Your task to perform on an android device: Show me productivity apps on the Play Store Image 0: 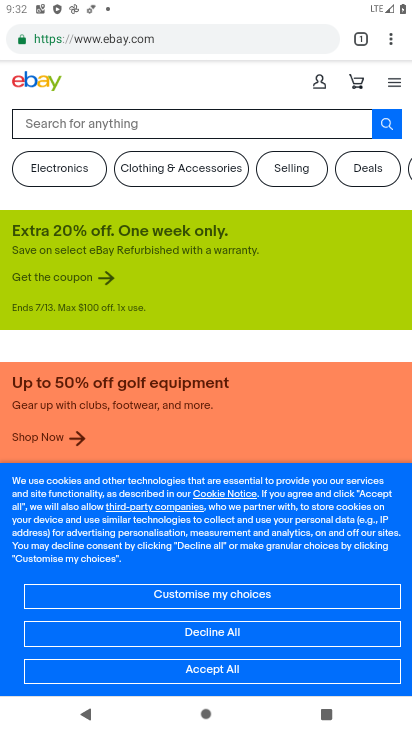
Step 0: press home button
Your task to perform on an android device: Show me productivity apps on the Play Store Image 1: 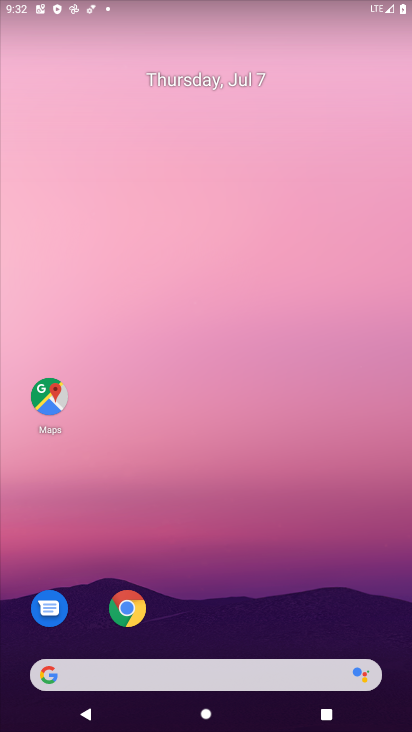
Step 1: drag from (176, 594) to (187, 114)
Your task to perform on an android device: Show me productivity apps on the Play Store Image 2: 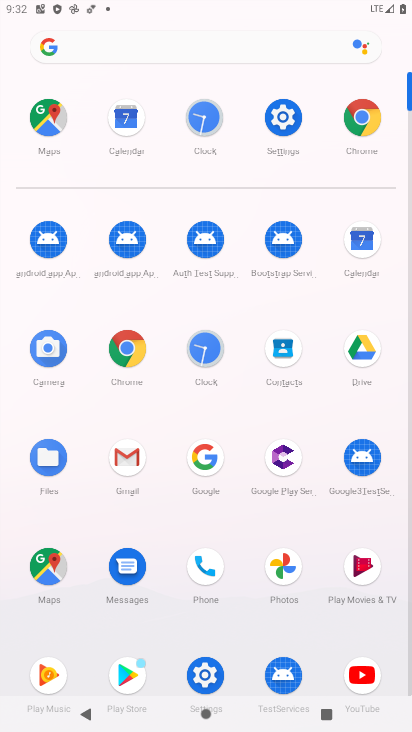
Step 2: click (126, 672)
Your task to perform on an android device: Show me productivity apps on the Play Store Image 3: 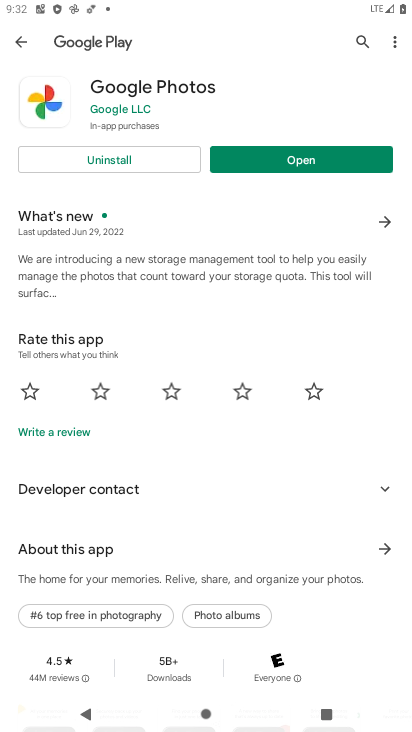
Step 3: press back button
Your task to perform on an android device: Show me productivity apps on the Play Store Image 4: 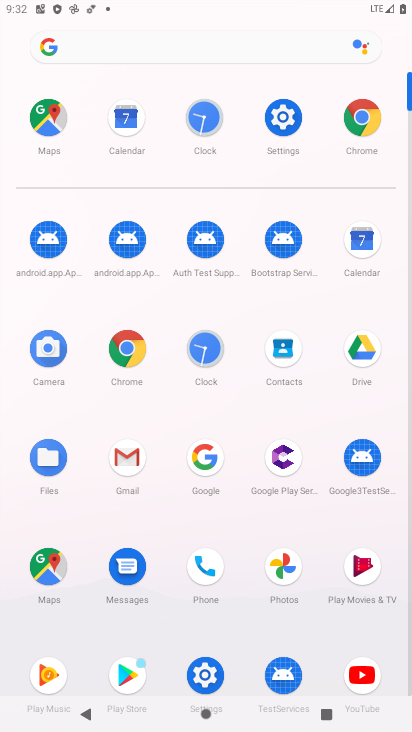
Step 4: click (129, 680)
Your task to perform on an android device: Show me productivity apps on the Play Store Image 5: 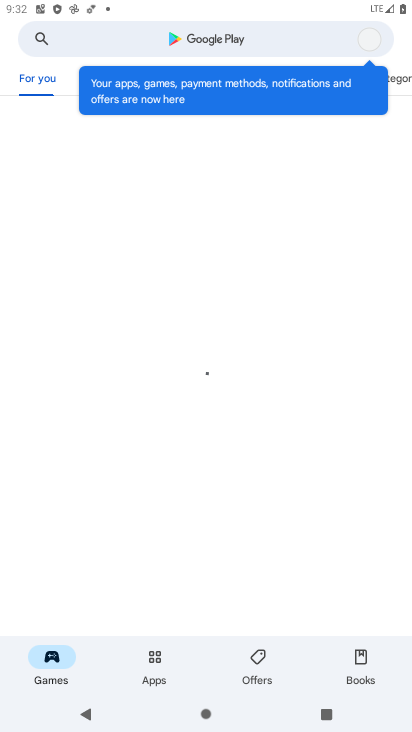
Step 5: click (153, 664)
Your task to perform on an android device: Show me productivity apps on the Play Store Image 6: 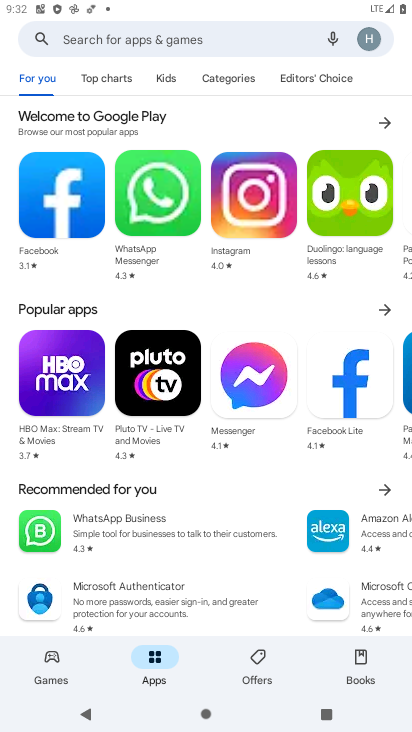
Step 6: click (233, 81)
Your task to perform on an android device: Show me productivity apps on the Play Store Image 7: 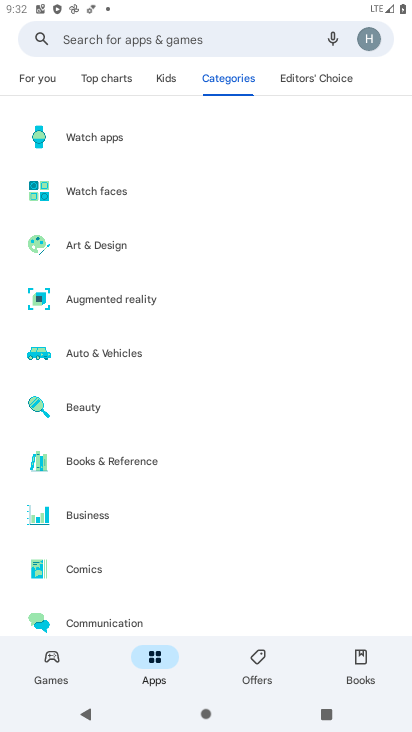
Step 7: drag from (217, 585) to (224, 29)
Your task to perform on an android device: Show me productivity apps on the Play Store Image 8: 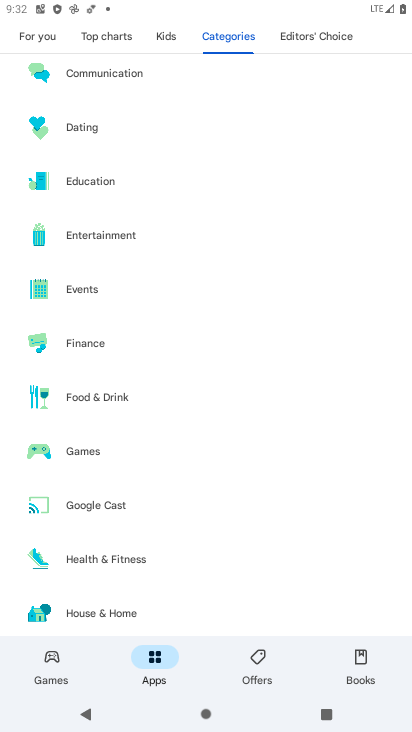
Step 8: drag from (179, 615) to (238, 54)
Your task to perform on an android device: Show me productivity apps on the Play Store Image 9: 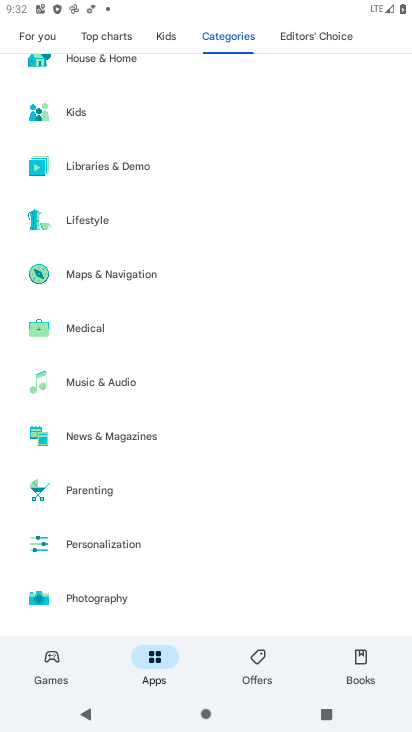
Step 9: drag from (122, 578) to (146, 285)
Your task to perform on an android device: Show me productivity apps on the Play Store Image 10: 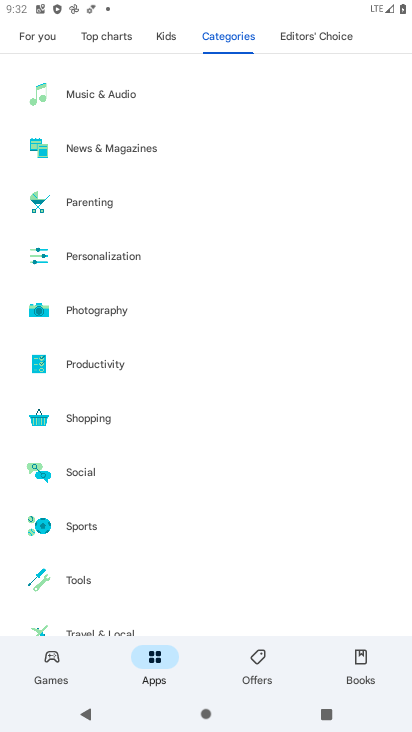
Step 10: click (105, 366)
Your task to perform on an android device: Show me productivity apps on the Play Store Image 11: 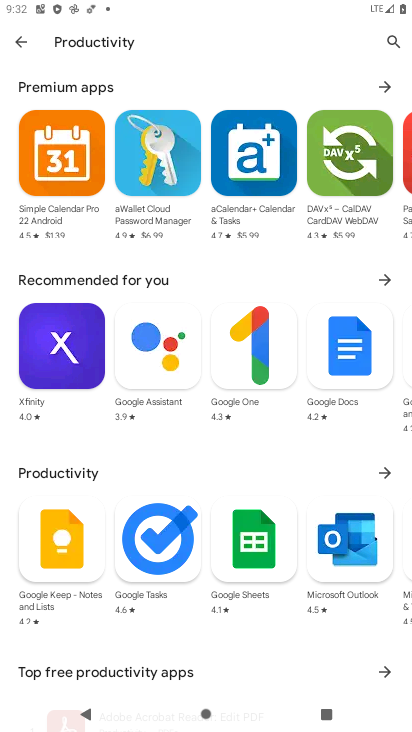
Step 11: task complete